Your task to perform on an android device: Go to Maps Image 0: 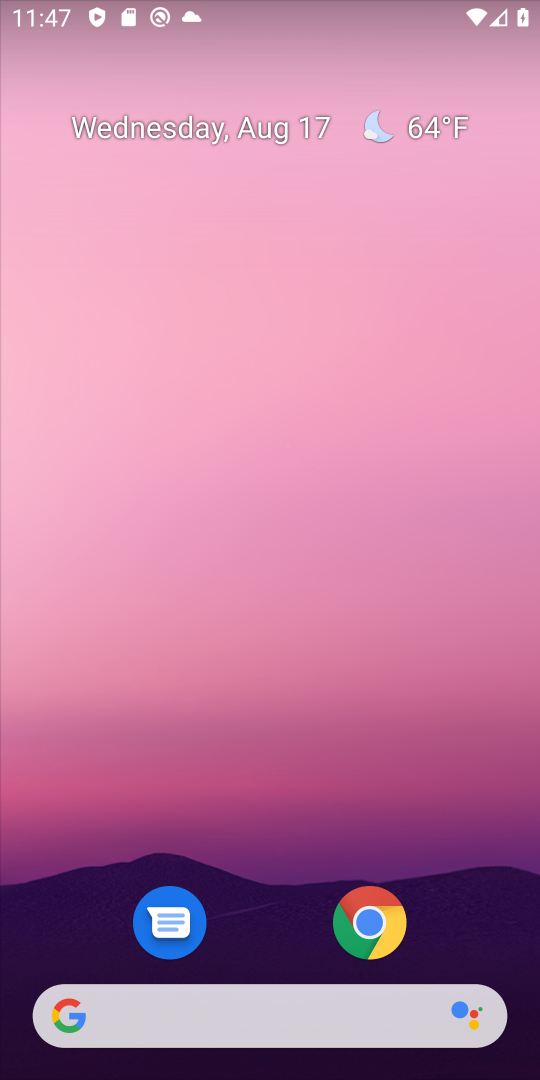
Step 0: drag from (265, 893) to (265, 389)
Your task to perform on an android device: Go to Maps Image 1: 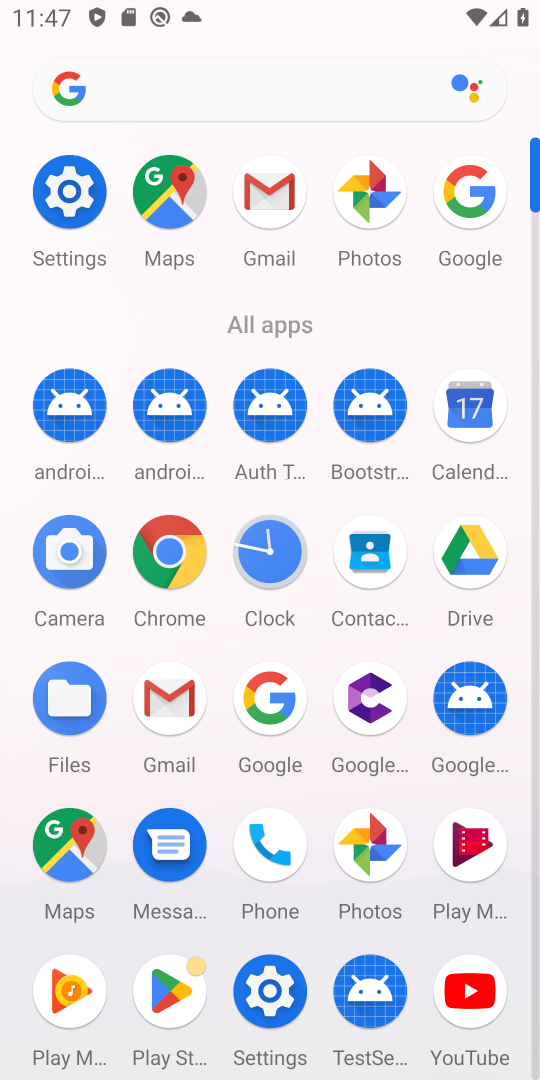
Step 1: click (171, 203)
Your task to perform on an android device: Go to Maps Image 2: 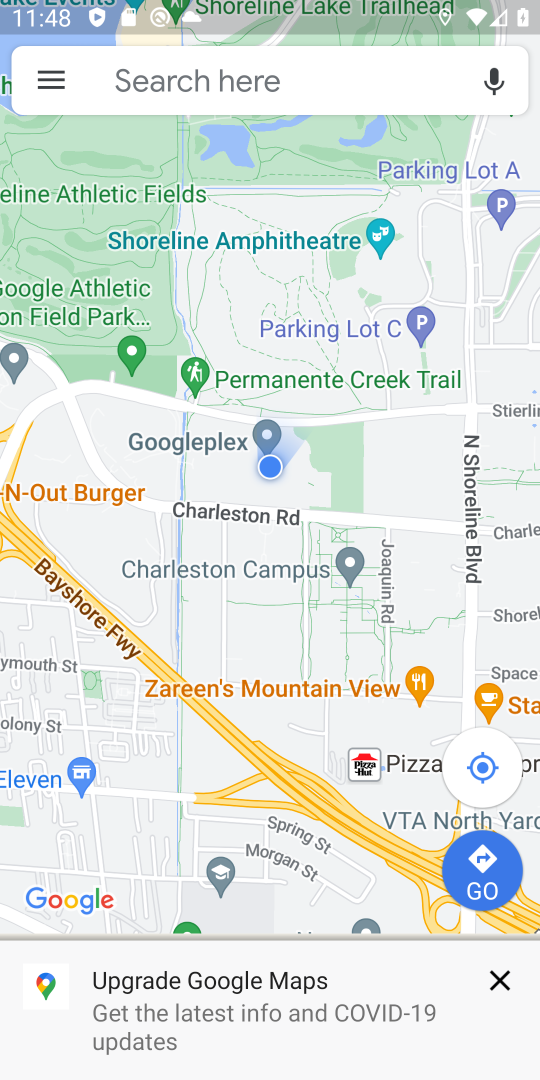
Step 2: task complete